Your task to perform on an android device: remove spam from my inbox in the gmail app Image 0: 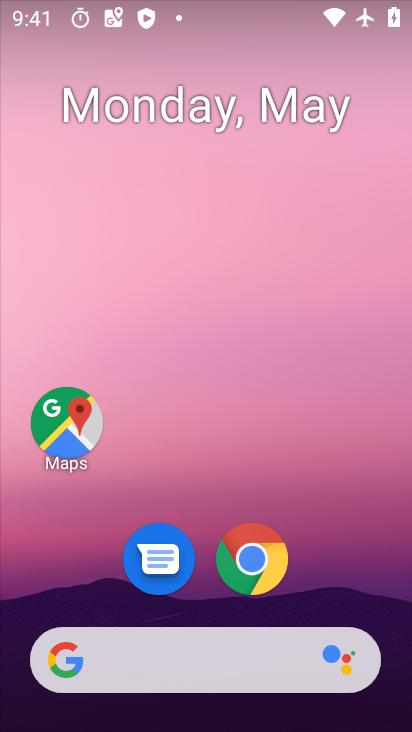
Step 0: drag from (330, 583) to (297, 171)
Your task to perform on an android device: remove spam from my inbox in the gmail app Image 1: 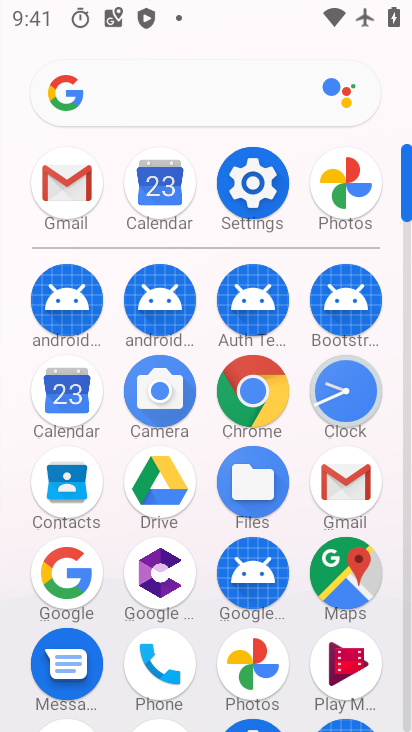
Step 1: click (336, 487)
Your task to perform on an android device: remove spam from my inbox in the gmail app Image 2: 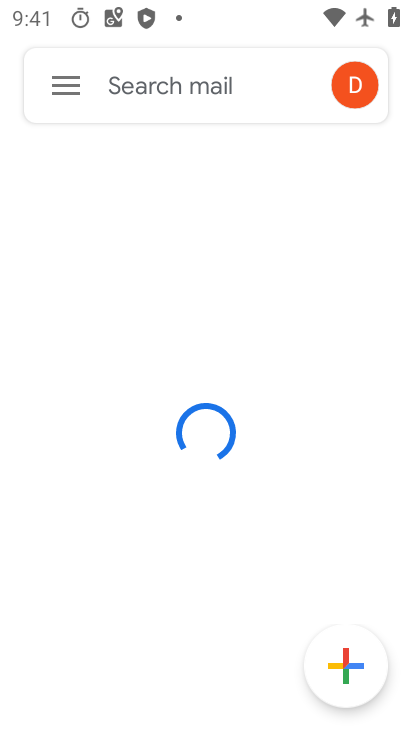
Step 2: click (62, 87)
Your task to perform on an android device: remove spam from my inbox in the gmail app Image 3: 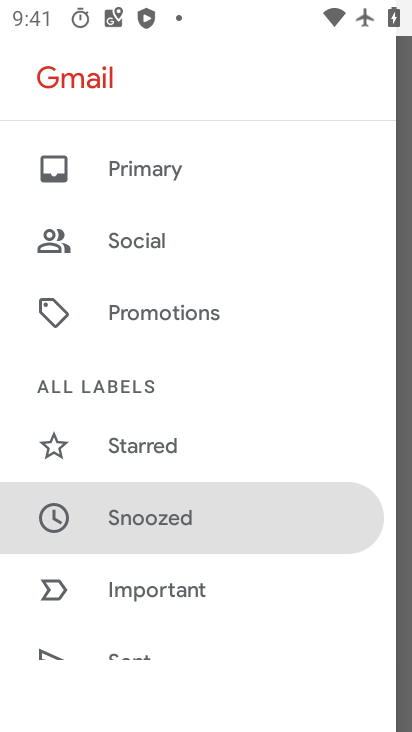
Step 3: drag from (119, 642) to (113, 360)
Your task to perform on an android device: remove spam from my inbox in the gmail app Image 4: 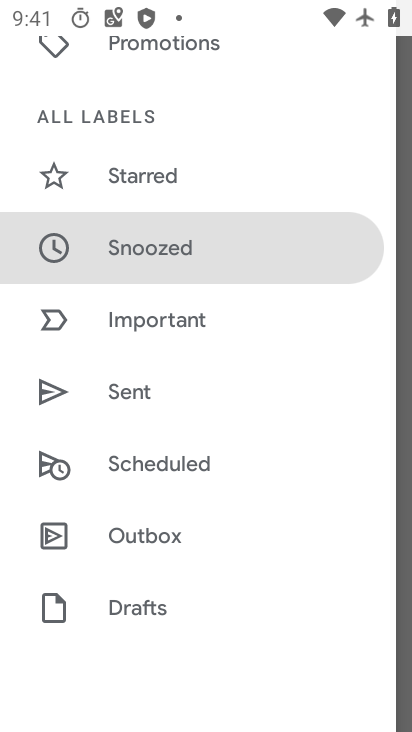
Step 4: drag from (114, 558) to (117, 366)
Your task to perform on an android device: remove spam from my inbox in the gmail app Image 5: 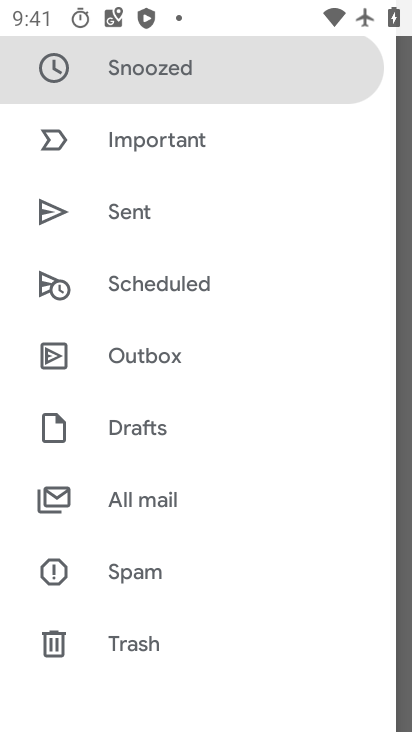
Step 5: click (98, 582)
Your task to perform on an android device: remove spam from my inbox in the gmail app Image 6: 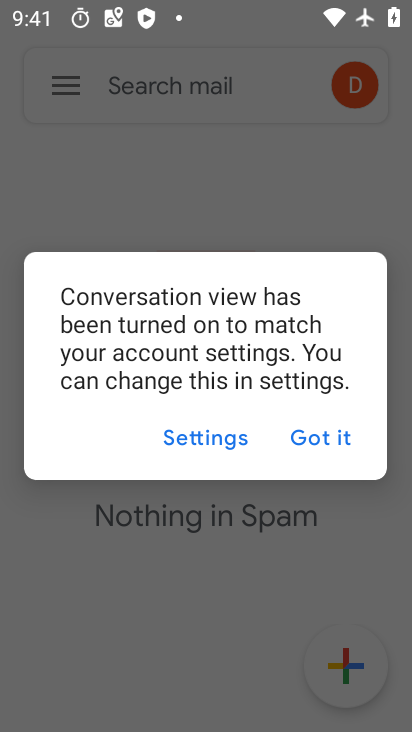
Step 6: click (313, 448)
Your task to perform on an android device: remove spam from my inbox in the gmail app Image 7: 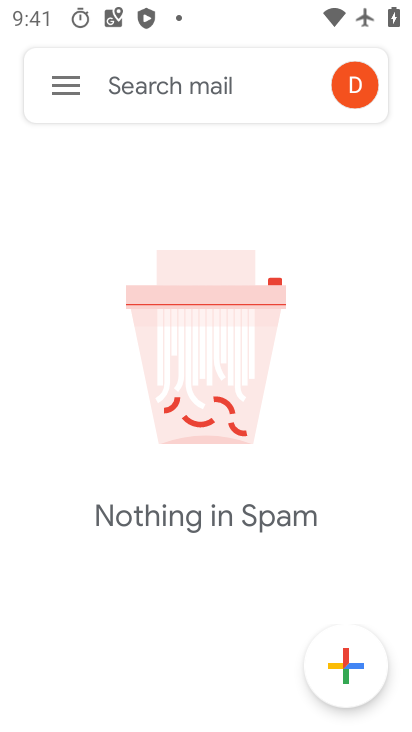
Step 7: task complete